Your task to perform on an android device: Add "logitech g pro" to the cart on costco.com, then select checkout. Image 0: 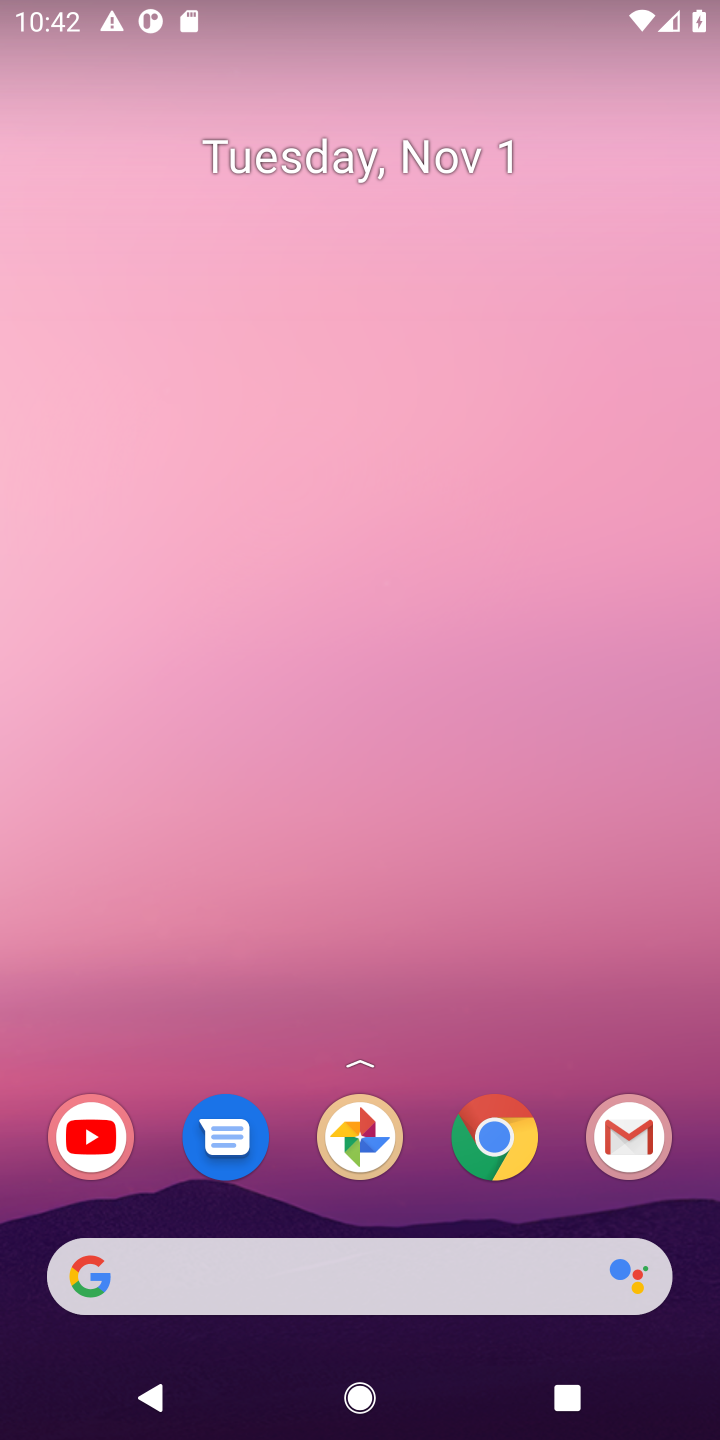
Step 0: click (307, 1272)
Your task to perform on an android device: Add "logitech g pro" to the cart on costco.com, then select checkout. Image 1: 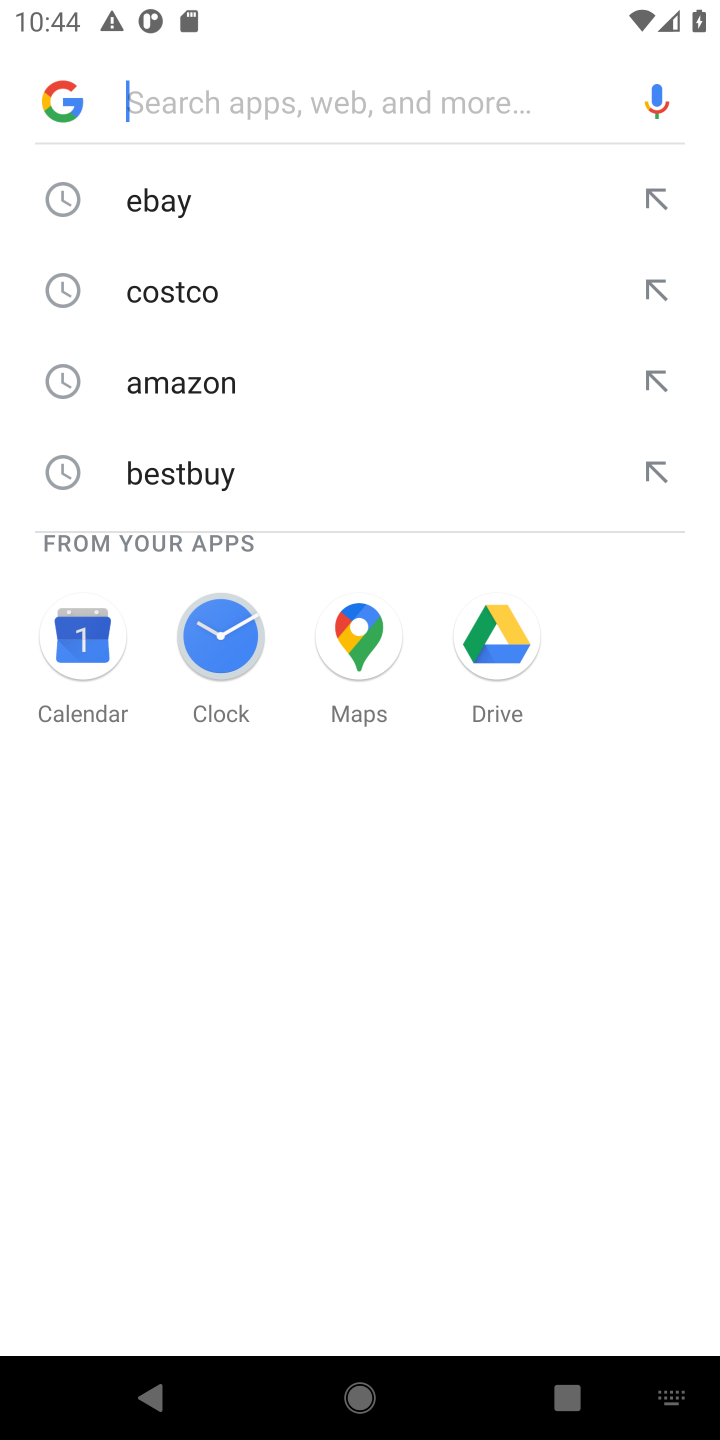
Step 1: click (144, 295)
Your task to perform on an android device: Add "logitech g pro" to the cart on costco.com, then select checkout. Image 2: 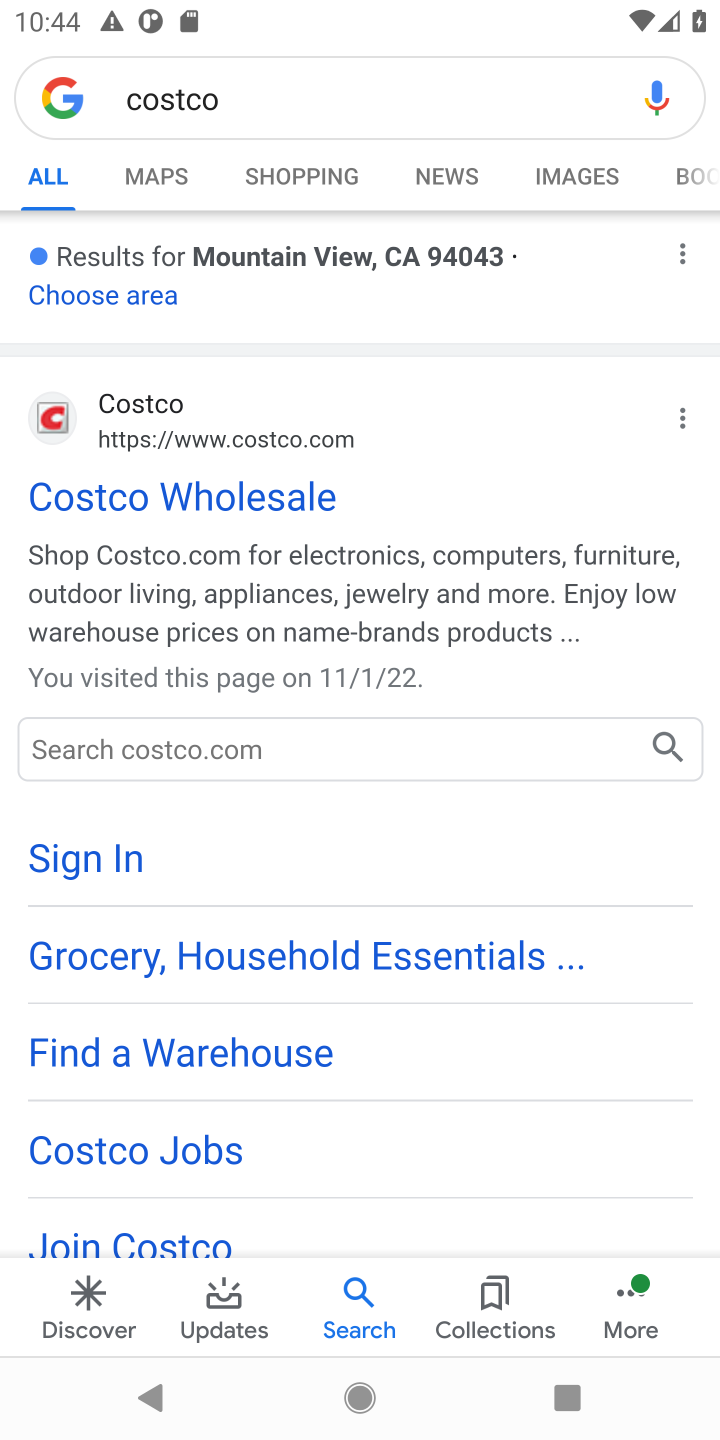
Step 2: click (132, 401)
Your task to perform on an android device: Add "logitech g pro" to the cart on costco.com, then select checkout. Image 3: 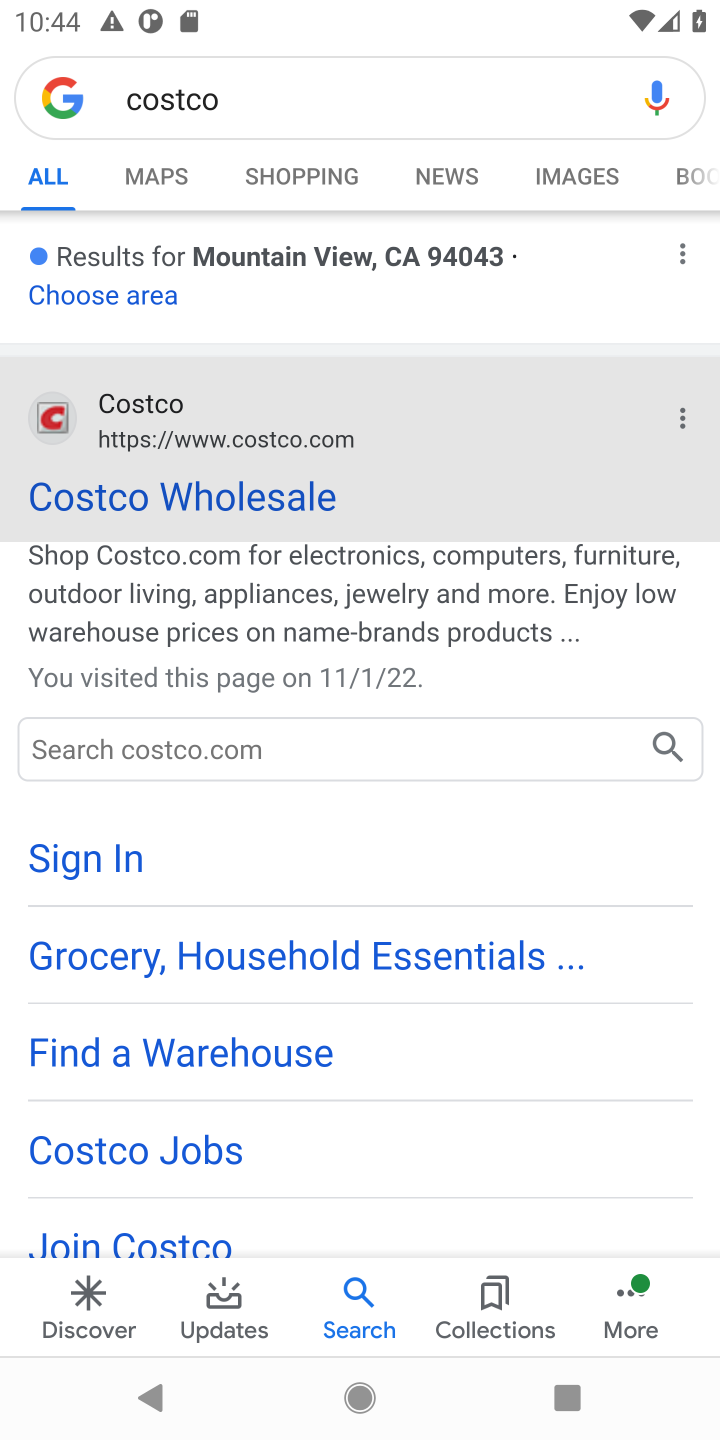
Step 3: click (132, 401)
Your task to perform on an android device: Add "logitech g pro" to the cart on costco.com, then select checkout. Image 4: 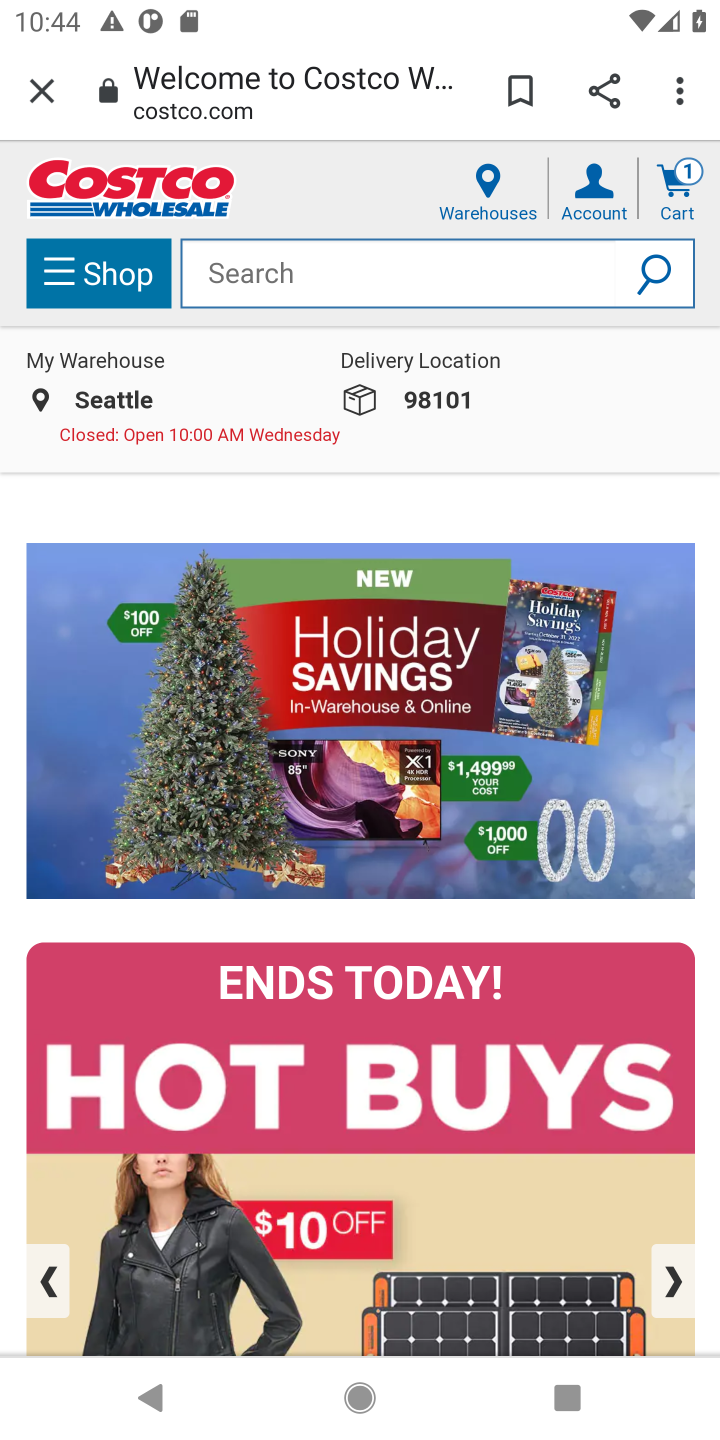
Step 4: click (472, 276)
Your task to perform on an android device: Add "logitech g pro" to the cart on costco.com, then select checkout. Image 5: 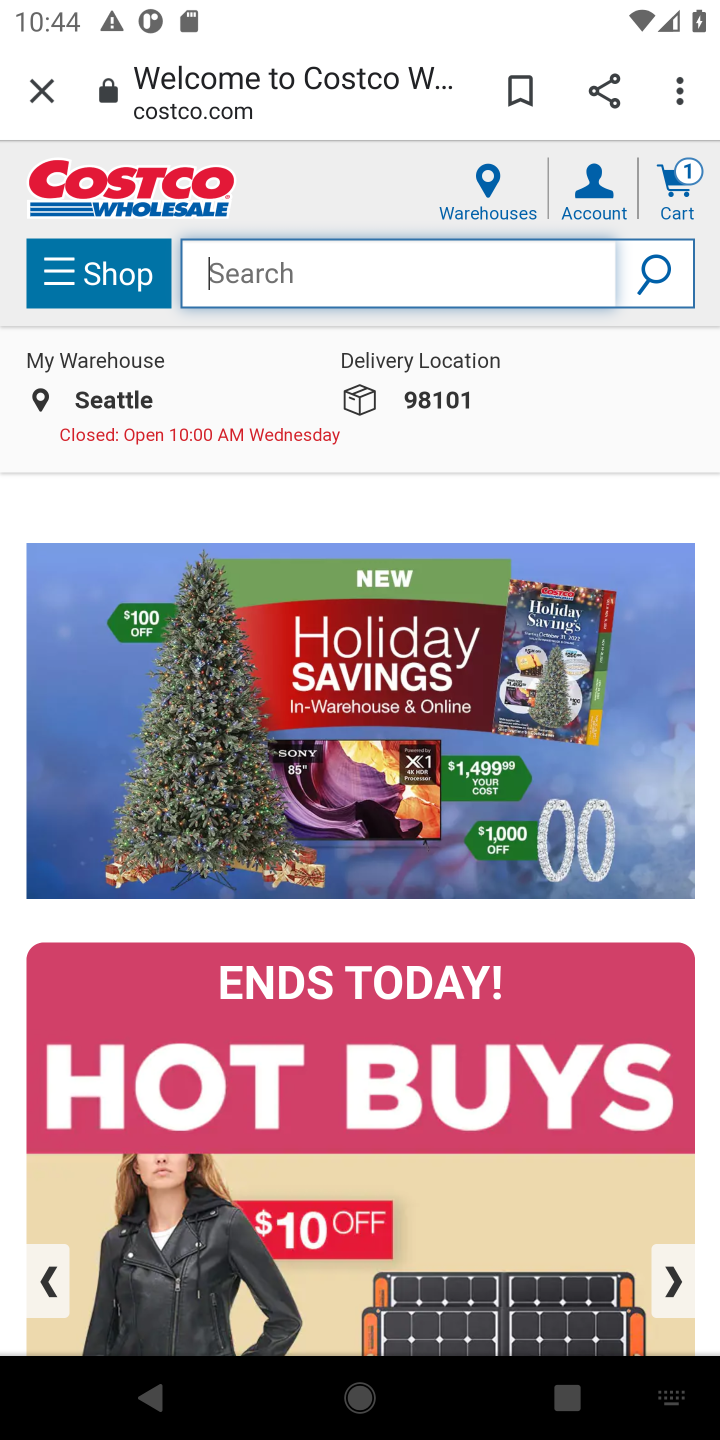
Step 5: type "logitech g pro"
Your task to perform on an android device: Add "logitech g pro" to the cart on costco.com, then select checkout. Image 6: 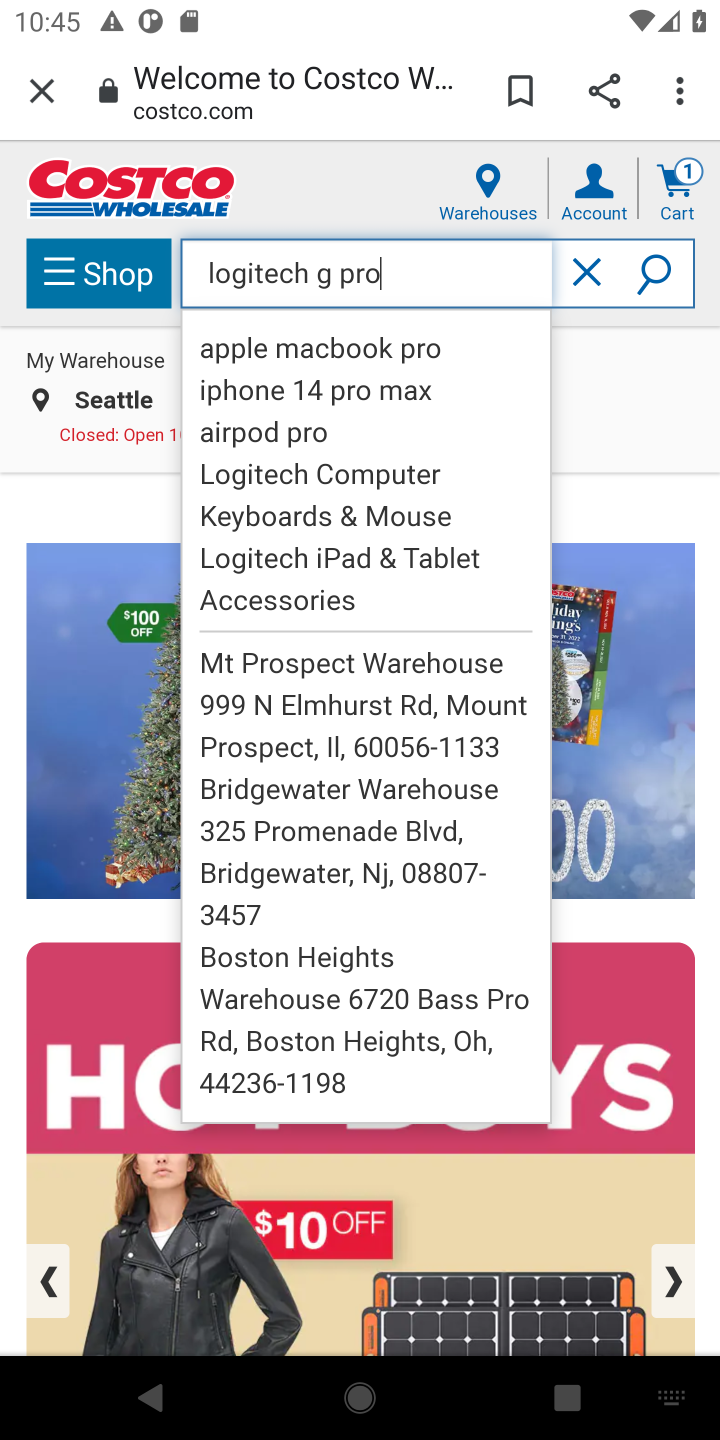
Step 6: task complete